Your task to perform on an android device: Open settings Image 0: 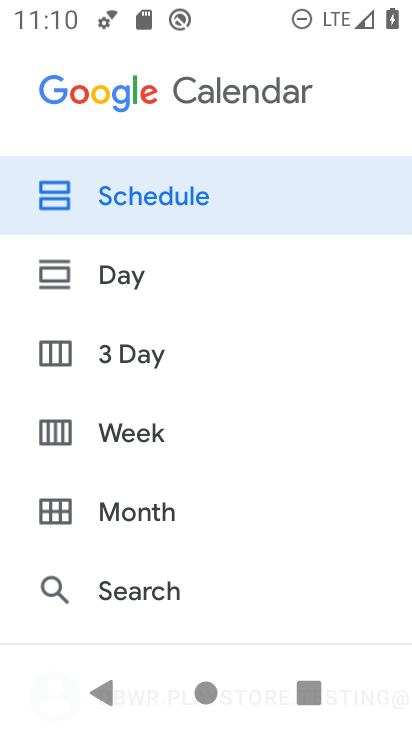
Step 0: press home button
Your task to perform on an android device: Open settings Image 1: 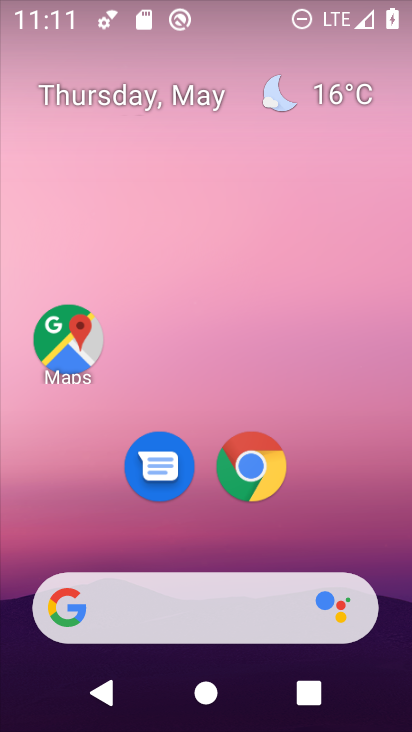
Step 1: drag from (313, 520) to (374, 187)
Your task to perform on an android device: Open settings Image 2: 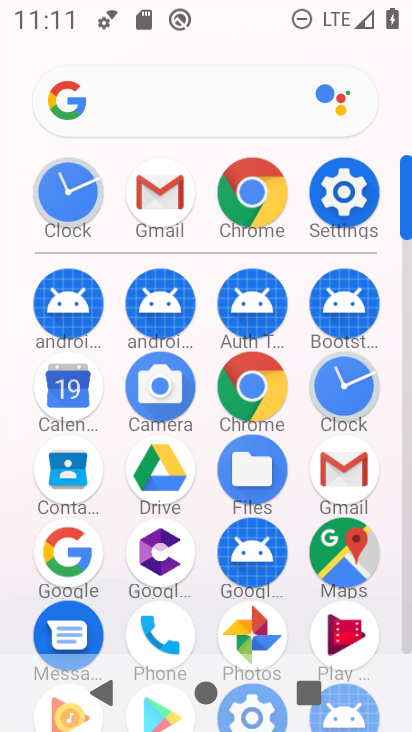
Step 2: click (325, 175)
Your task to perform on an android device: Open settings Image 3: 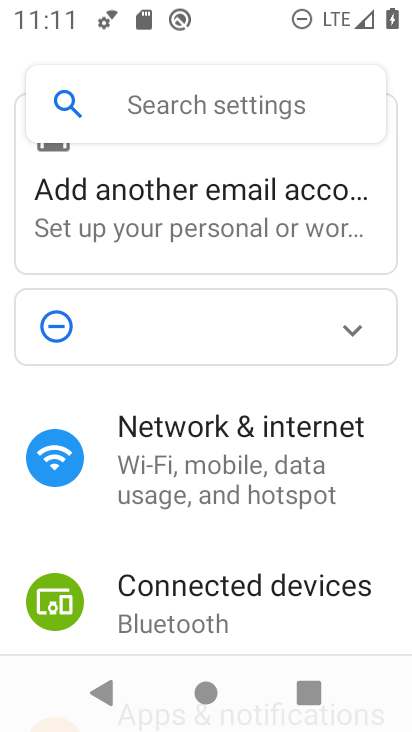
Step 3: task complete